Your task to perform on an android device: Open calendar and show me the fourth week of next month Image 0: 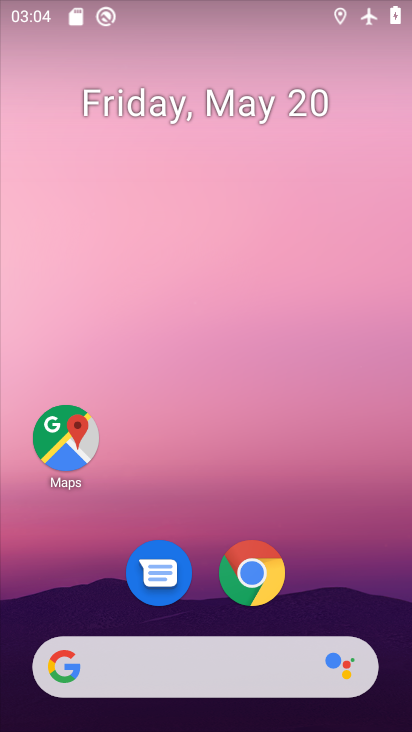
Step 0: drag from (194, 611) to (205, 315)
Your task to perform on an android device: Open calendar and show me the fourth week of next month Image 1: 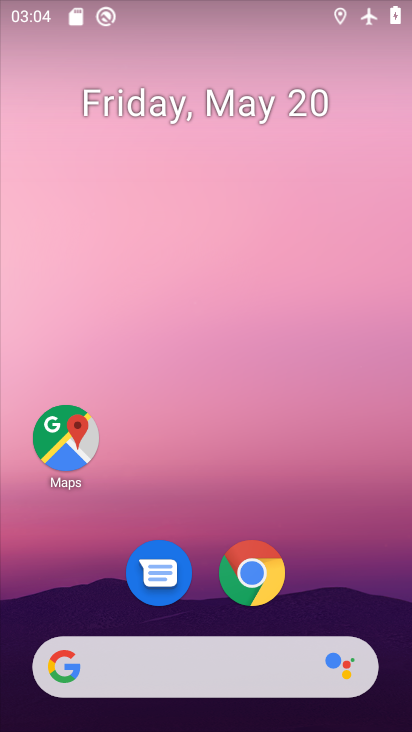
Step 1: drag from (197, 620) to (206, 295)
Your task to perform on an android device: Open calendar and show me the fourth week of next month Image 2: 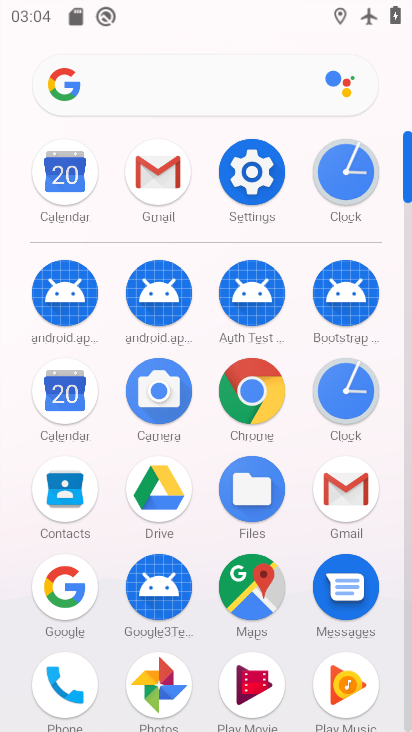
Step 2: click (75, 200)
Your task to perform on an android device: Open calendar and show me the fourth week of next month Image 3: 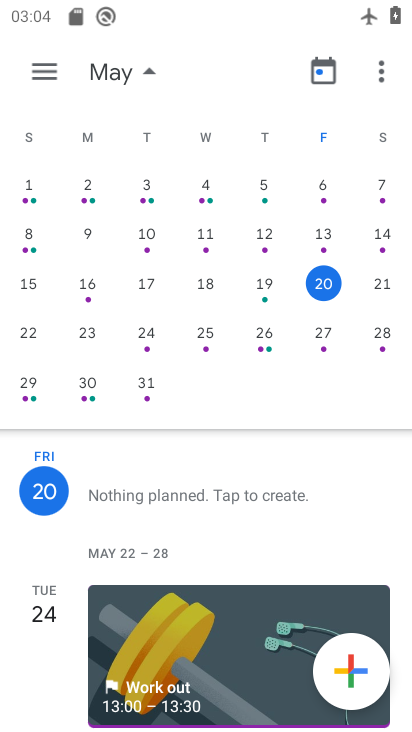
Step 3: drag from (343, 229) to (150, 229)
Your task to perform on an android device: Open calendar and show me the fourth week of next month Image 4: 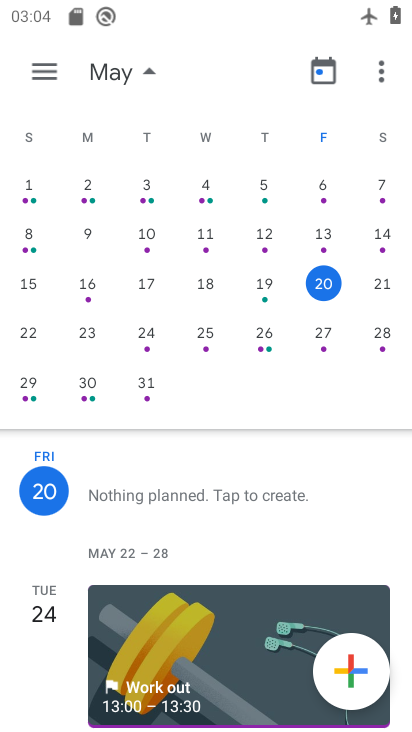
Step 4: drag from (295, 231) to (8, 242)
Your task to perform on an android device: Open calendar and show me the fourth week of next month Image 5: 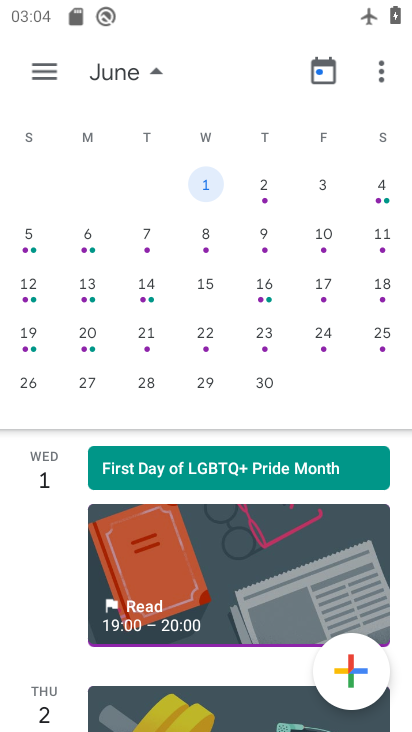
Step 5: click (34, 323)
Your task to perform on an android device: Open calendar and show me the fourth week of next month Image 6: 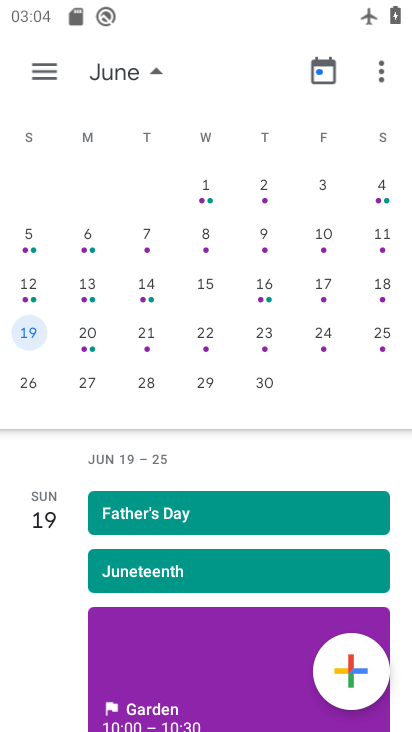
Step 6: task complete